Your task to perform on an android device: Go to settings Image 0: 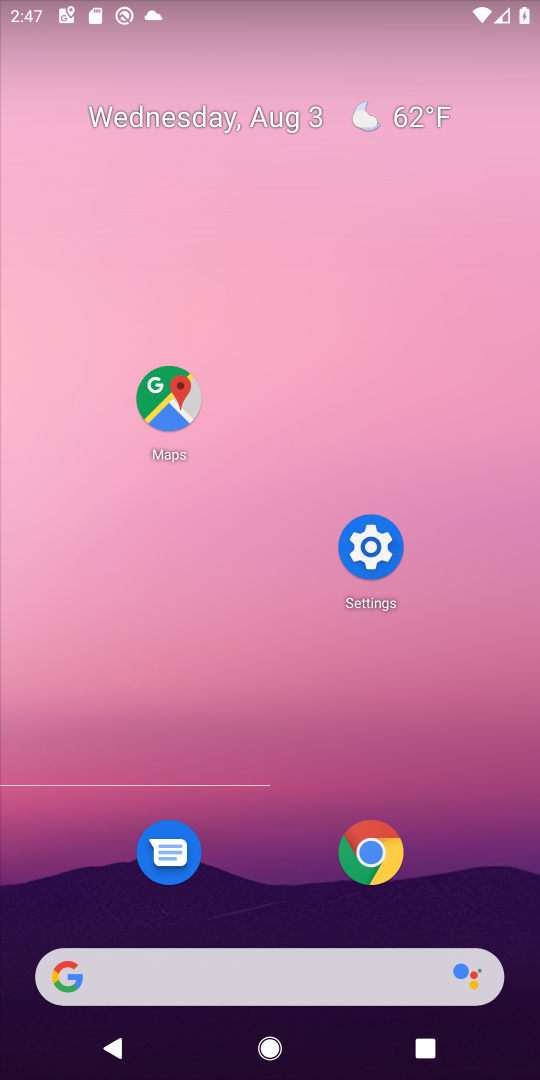
Step 0: press home button
Your task to perform on an android device: Go to settings Image 1: 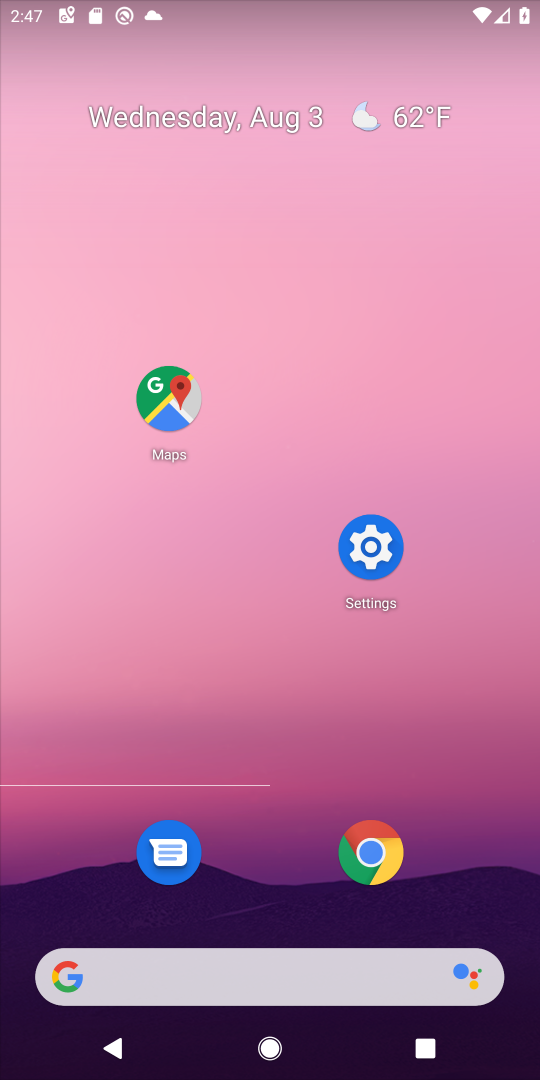
Step 1: click (377, 545)
Your task to perform on an android device: Go to settings Image 2: 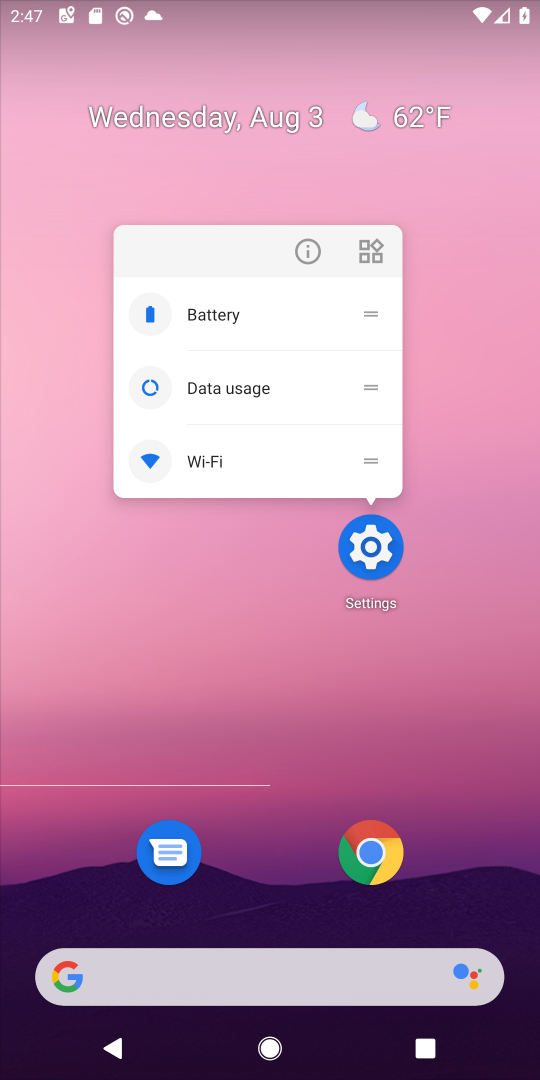
Step 2: click (376, 551)
Your task to perform on an android device: Go to settings Image 3: 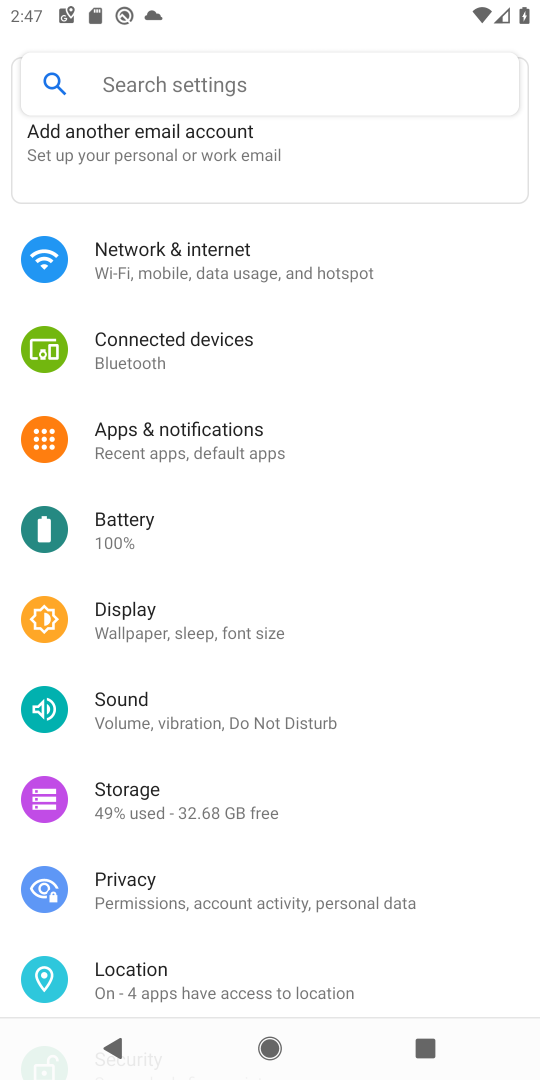
Step 3: task complete